Your task to perform on an android device: Open Google Chrome Image 0: 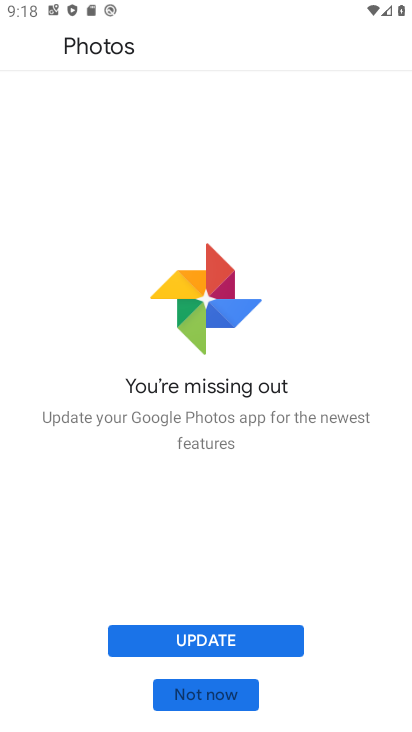
Step 0: press home button
Your task to perform on an android device: Open Google Chrome Image 1: 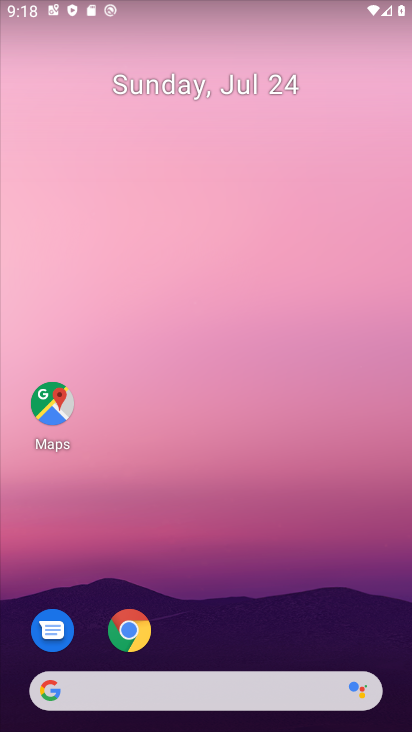
Step 1: click (143, 634)
Your task to perform on an android device: Open Google Chrome Image 2: 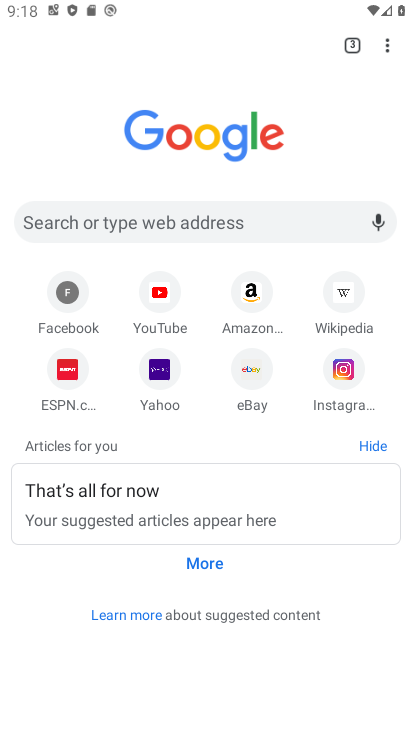
Step 2: task complete